Your task to perform on an android device: Go to Android settings Image 0: 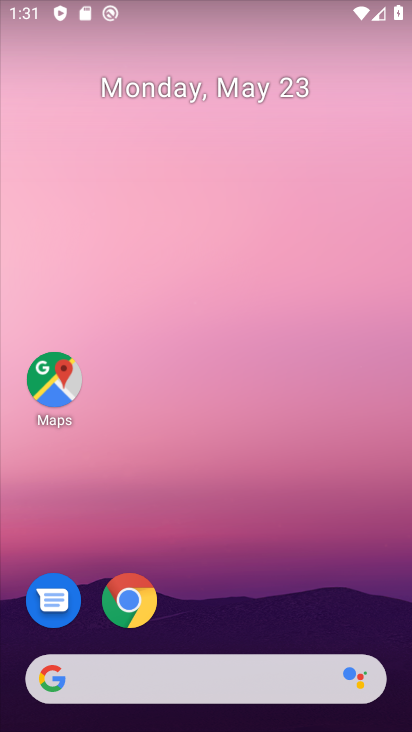
Step 0: drag from (276, 613) to (255, 3)
Your task to perform on an android device: Go to Android settings Image 1: 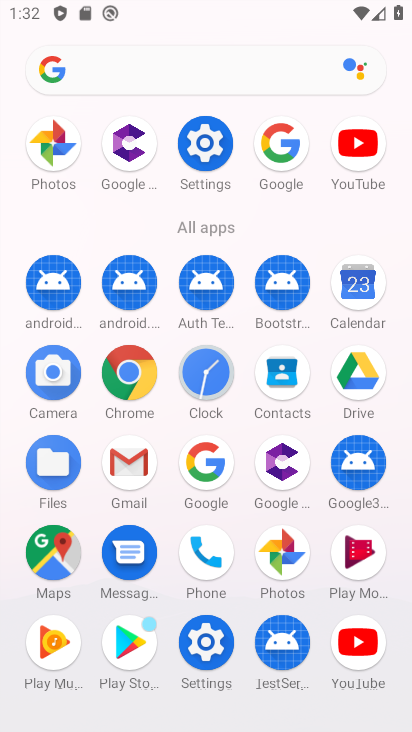
Step 1: click (201, 154)
Your task to perform on an android device: Go to Android settings Image 2: 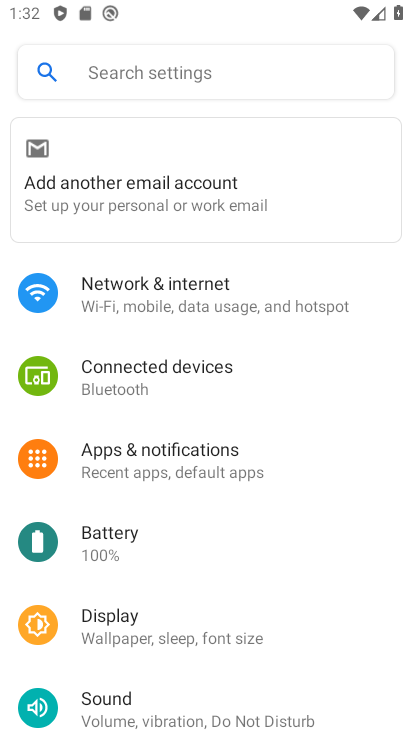
Step 2: task complete